Your task to perform on an android device: change keyboard looks Image 0: 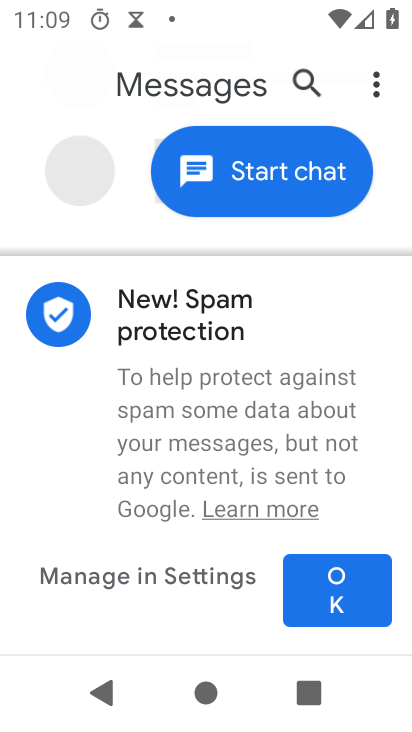
Step 0: press home button
Your task to perform on an android device: change keyboard looks Image 1: 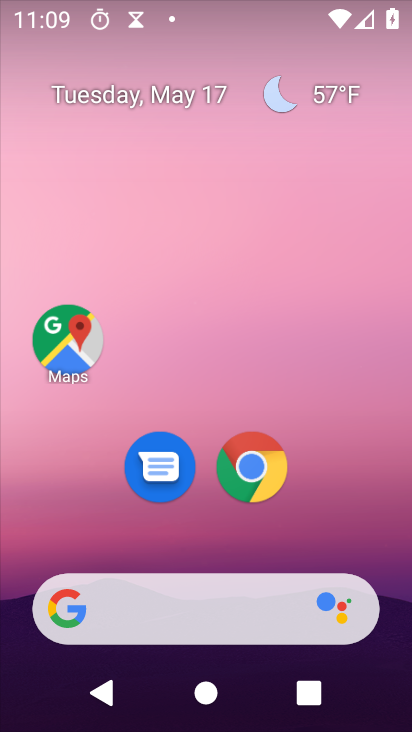
Step 1: drag from (204, 555) to (257, 167)
Your task to perform on an android device: change keyboard looks Image 2: 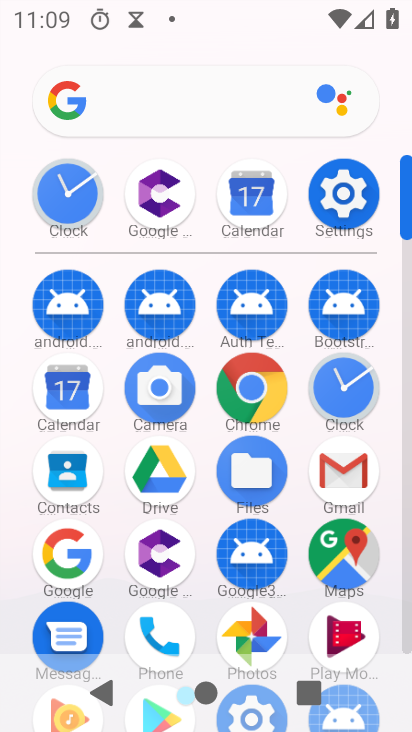
Step 2: click (340, 204)
Your task to perform on an android device: change keyboard looks Image 3: 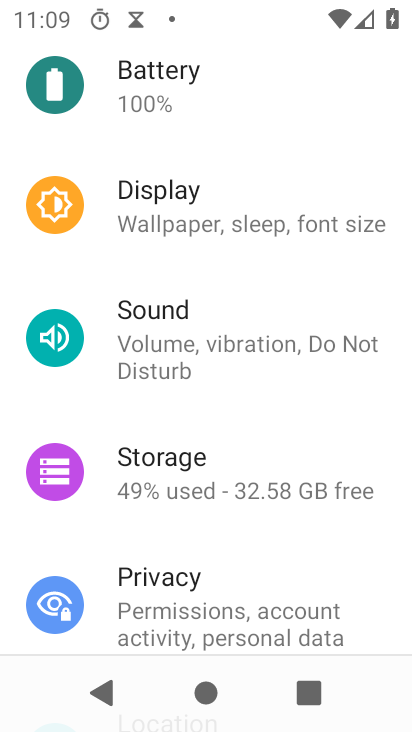
Step 3: drag from (221, 622) to (213, 242)
Your task to perform on an android device: change keyboard looks Image 4: 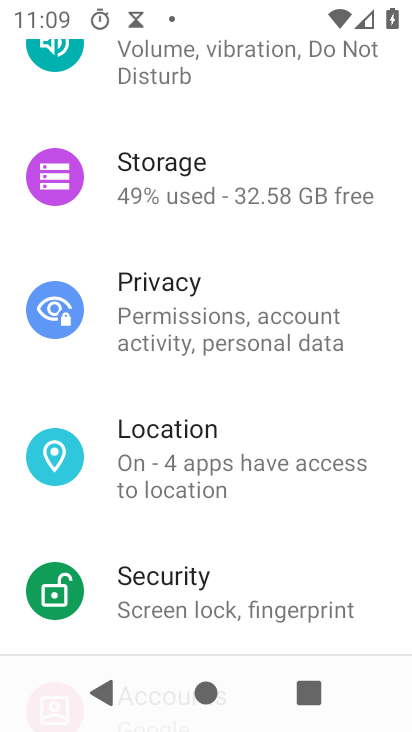
Step 4: drag from (226, 626) to (226, 257)
Your task to perform on an android device: change keyboard looks Image 5: 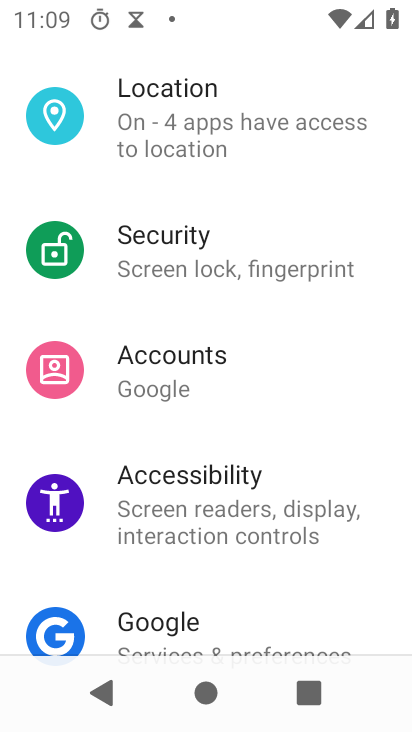
Step 5: drag from (214, 570) to (214, 288)
Your task to perform on an android device: change keyboard looks Image 6: 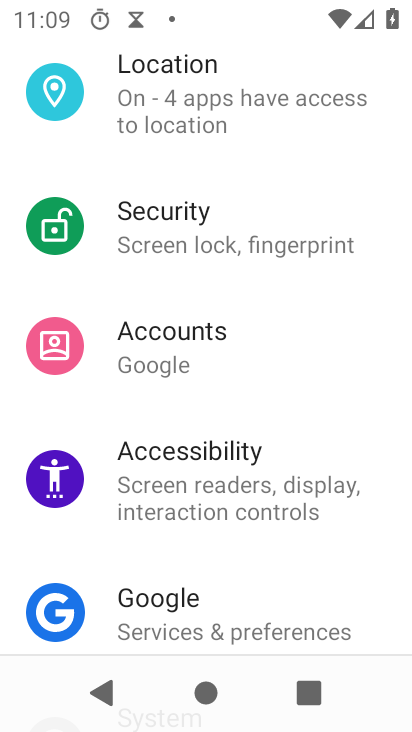
Step 6: drag from (232, 636) to (232, 286)
Your task to perform on an android device: change keyboard looks Image 7: 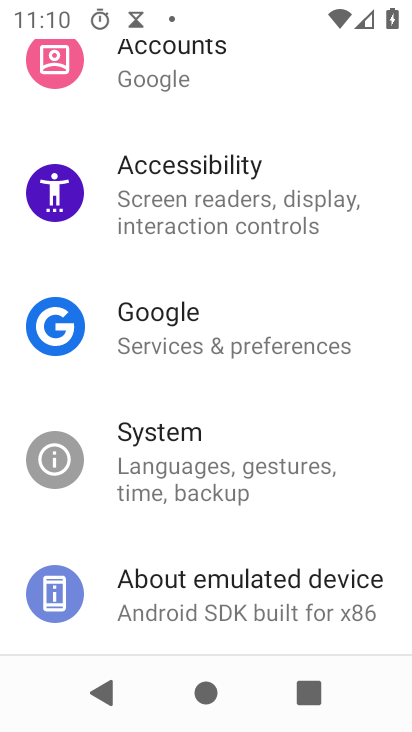
Step 7: click (157, 454)
Your task to perform on an android device: change keyboard looks Image 8: 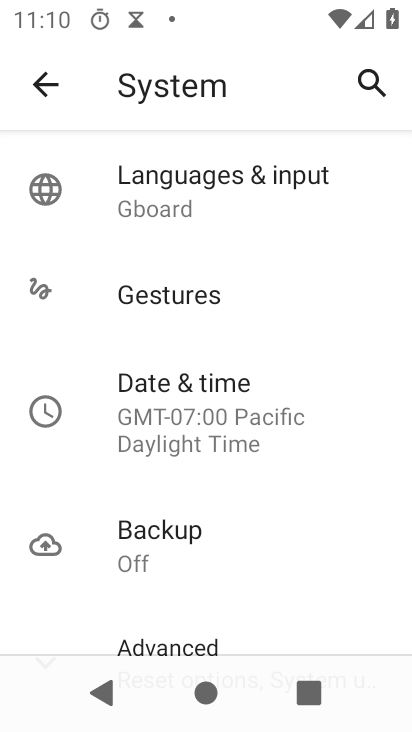
Step 8: drag from (198, 650) to (193, 271)
Your task to perform on an android device: change keyboard looks Image 9: 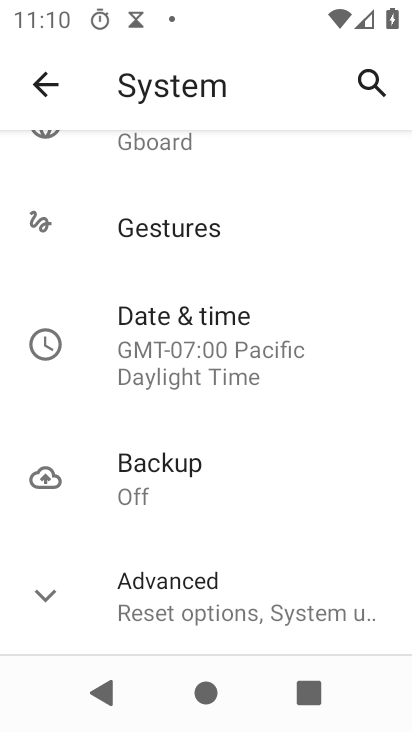
Step 9: drag from (243, 217) to (243, 522)
Your task to perform on an android device: change keyboard looks Image 10: 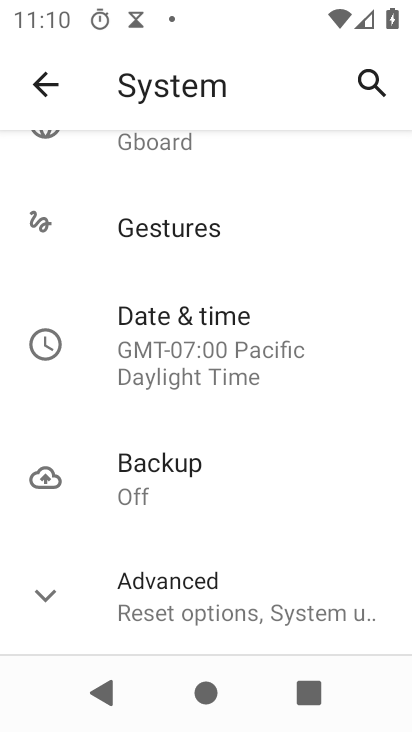
Step 10: click (177, 136)
Your task to perform on an android device: change keyboard looks Image 11: 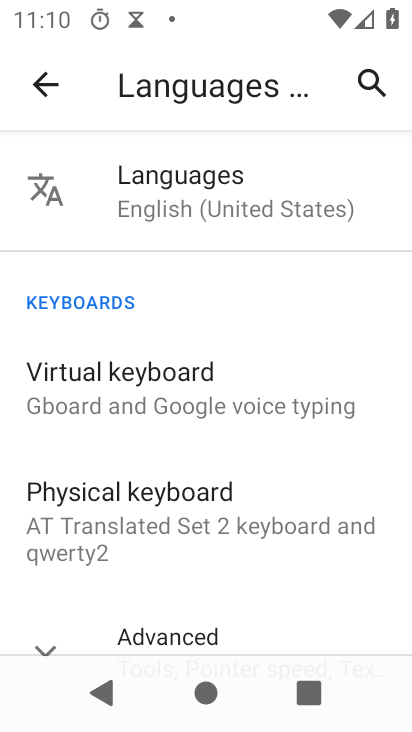
Step 11: click (158, 386)
Your task to perform on an android device: change keyboard looks Image 12: 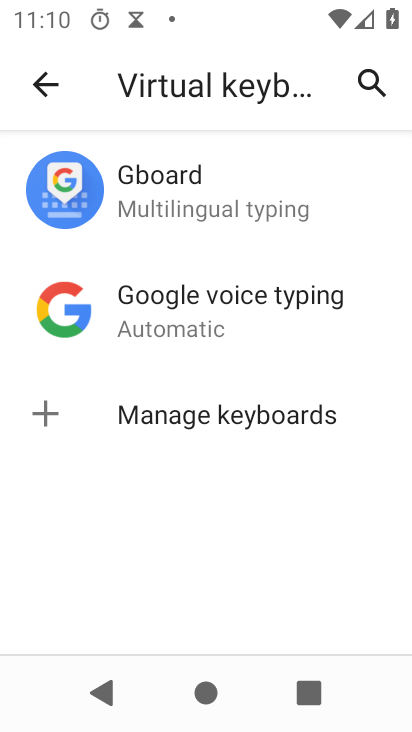
Step 12: click (178, 192)
Your task to perform on an android device: change keyboard looks Image 13: 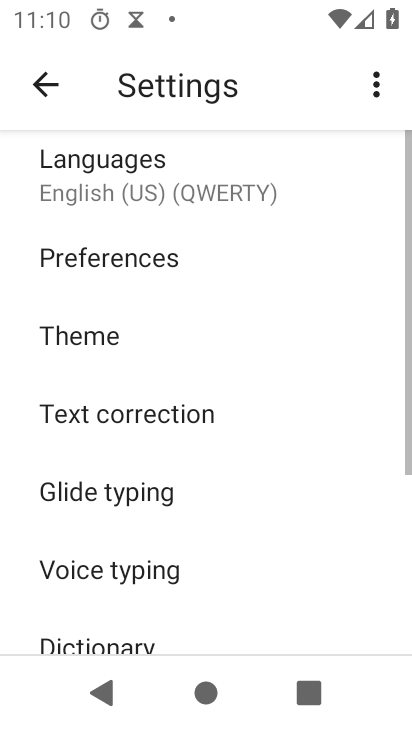
Step 13: click (98, 348)
Your task to perform on an android device: change keyboard looks Image 14: 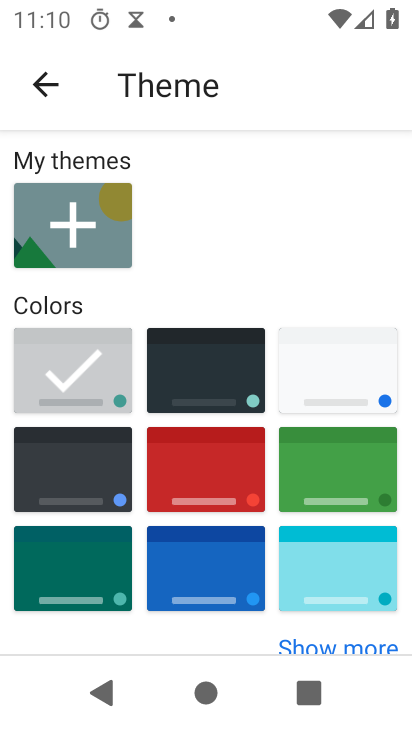
Step 14: click (185, 387)
Your task to perform on an android device: change keyboard looks Image 15: 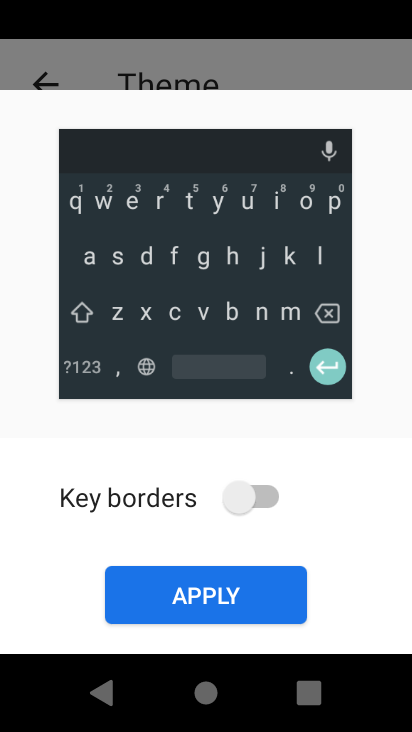
Step 15: click (224, 603)
Your task to perform on an android device: change keyboard looks Image 16: 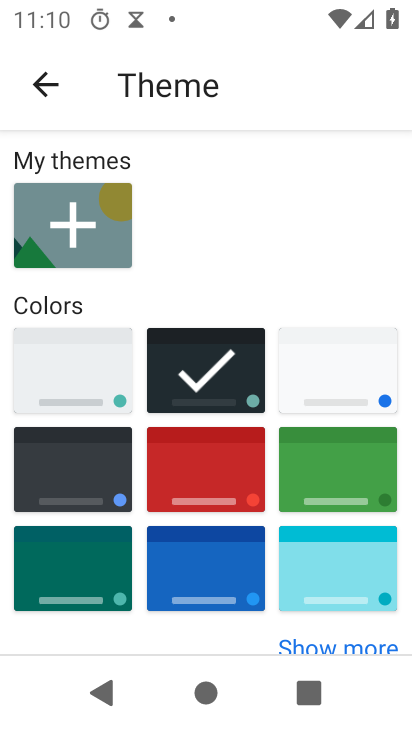
Step 16: task complete